Your task to perform on an android device: Open Yahoo.com Image 0: 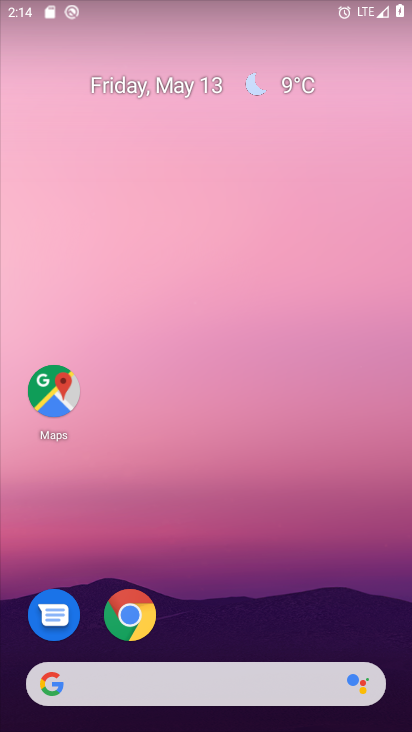
Step 0: click (270, 693)
Your task to perform on an android device: Open Yahoo.com Image 1: 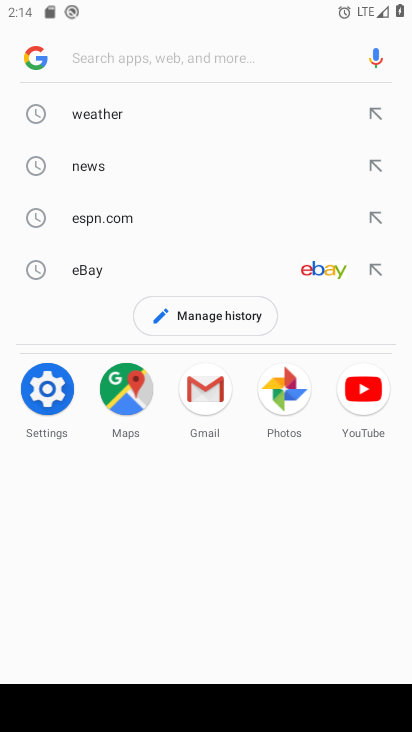
Step 1: type "yahoo.com"
Your task to perform on an android device: Open Yahoo.com Image 2: 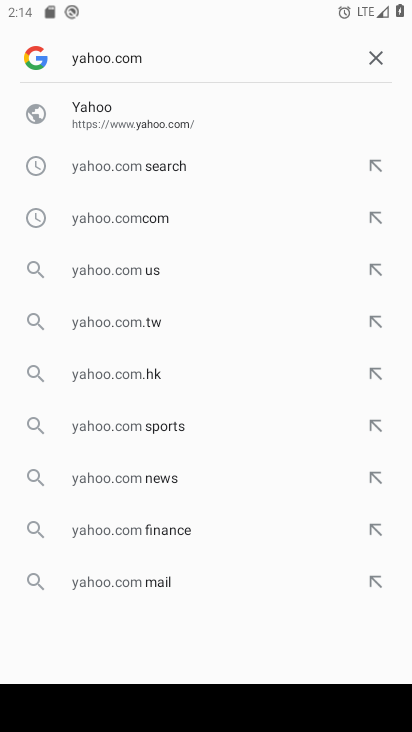
Step 2: click (89, 105)
Your task to perform on an android device: Open Yahoo.com Image 3: 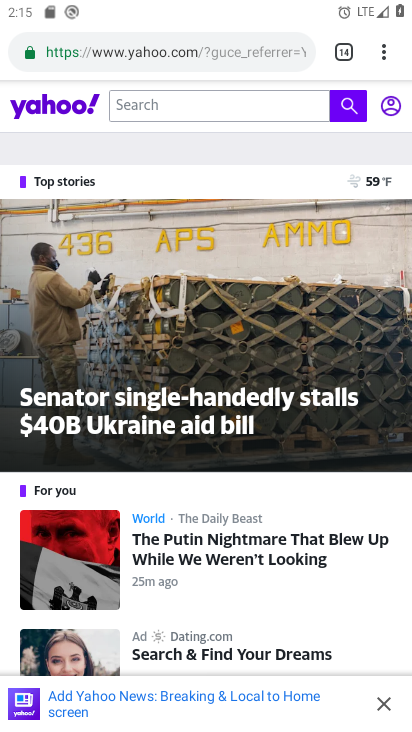
Step 3: task complete